Your task to perform on an android device: Search for pizza restaurants on Maps Image 0: 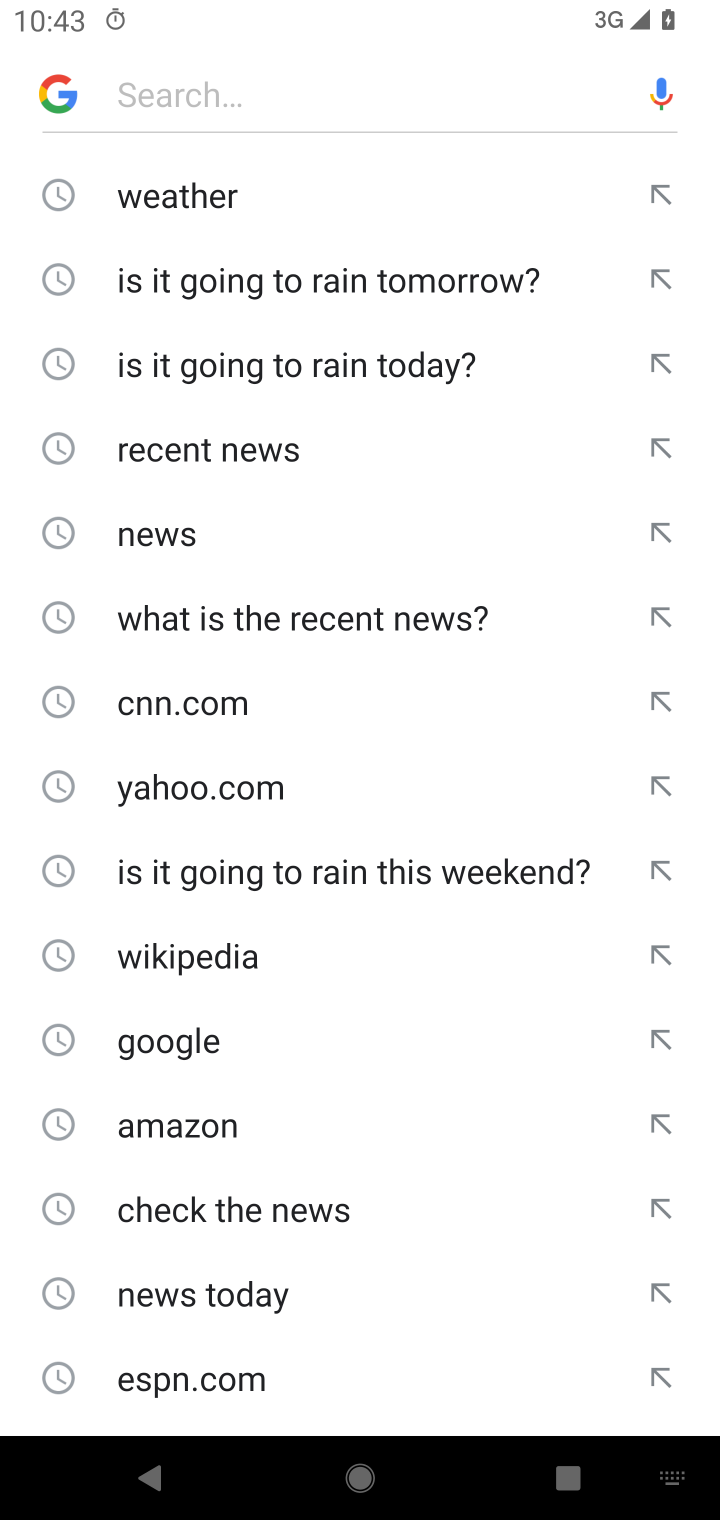
Step 0: press home button
Your task to perform on an android device: Search for pizza restaurants on Maps Image 1: 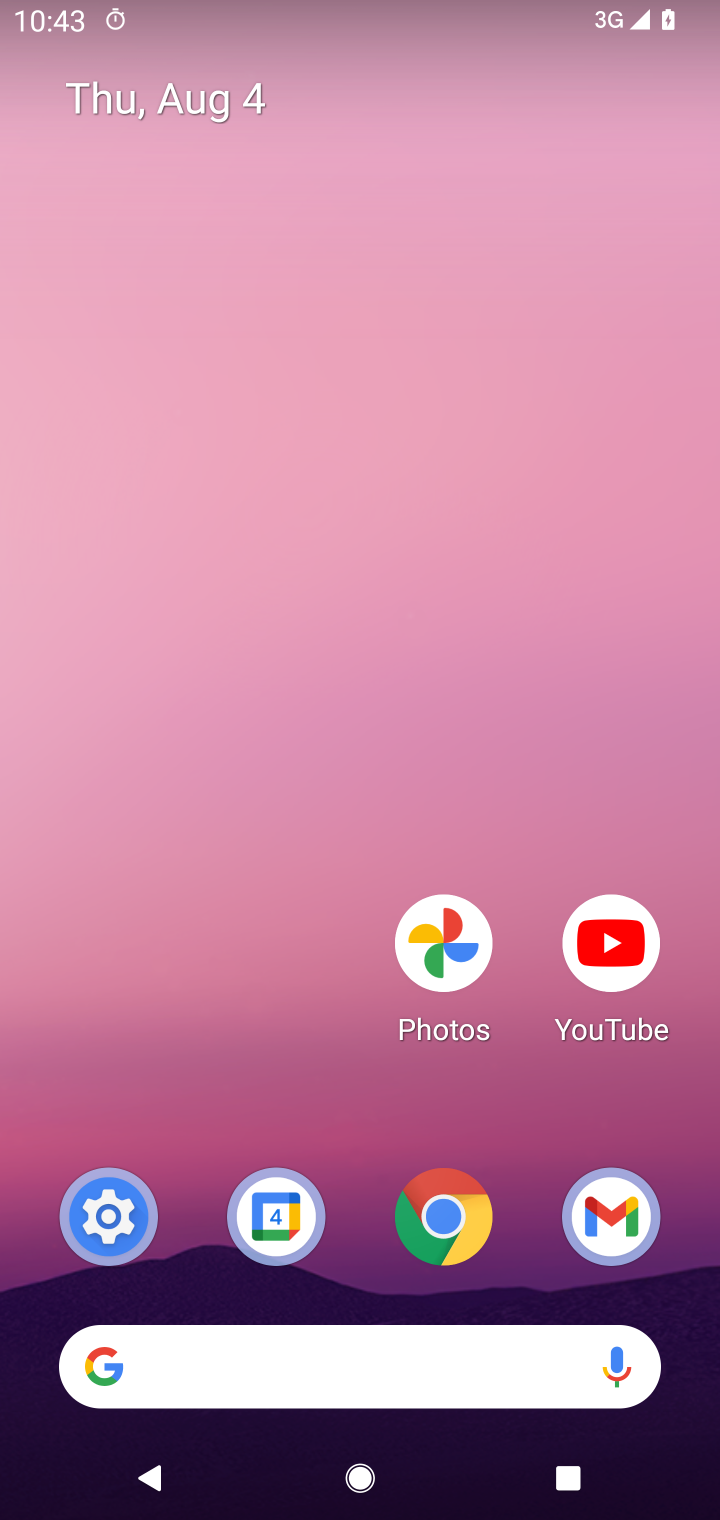
Step 1: drag from (349, 1196) to (347, 138)
Your task to perform on an android device: Search for pizza restaurants on Maps Image 2: 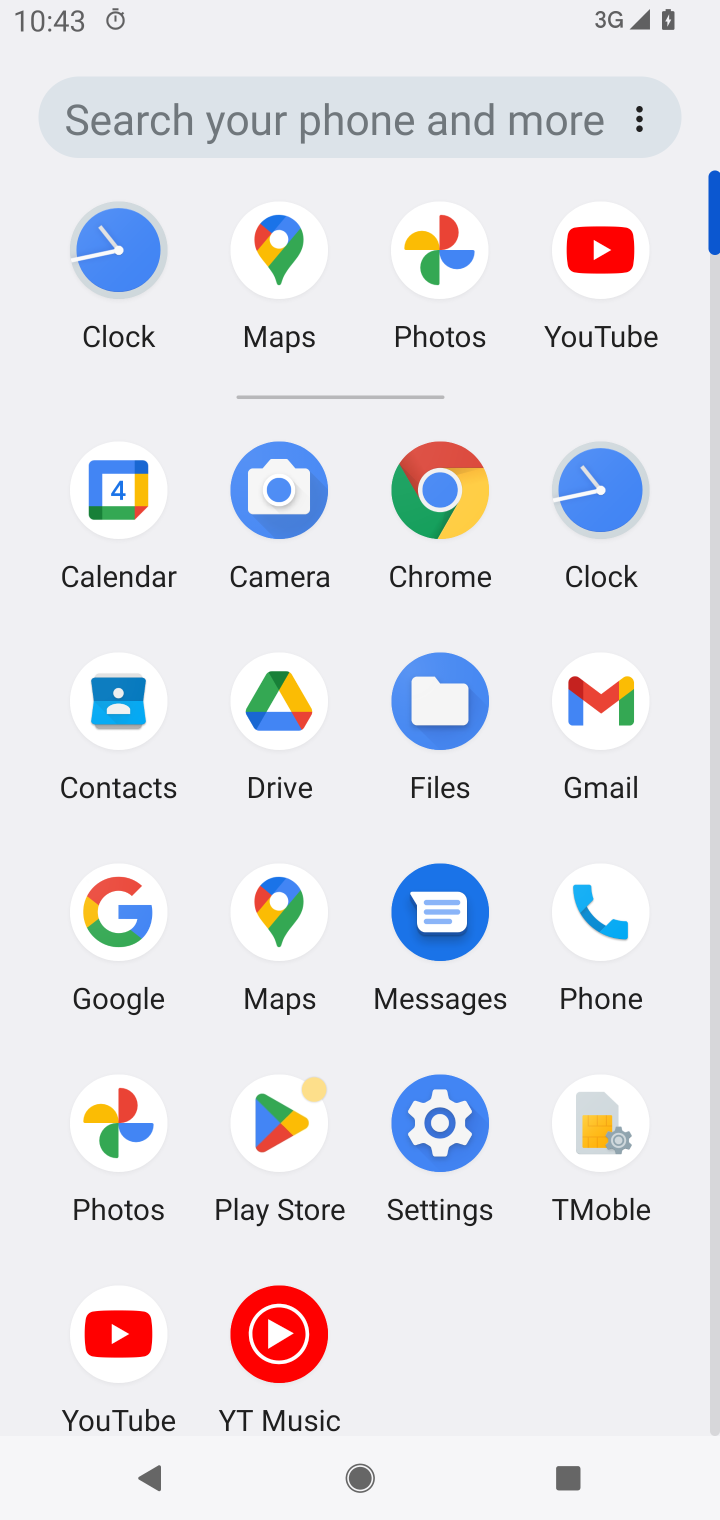
Step 2: click (260, 913)
Your task to perform on an android device: Search for pizza restaurants on Maps Image 3: 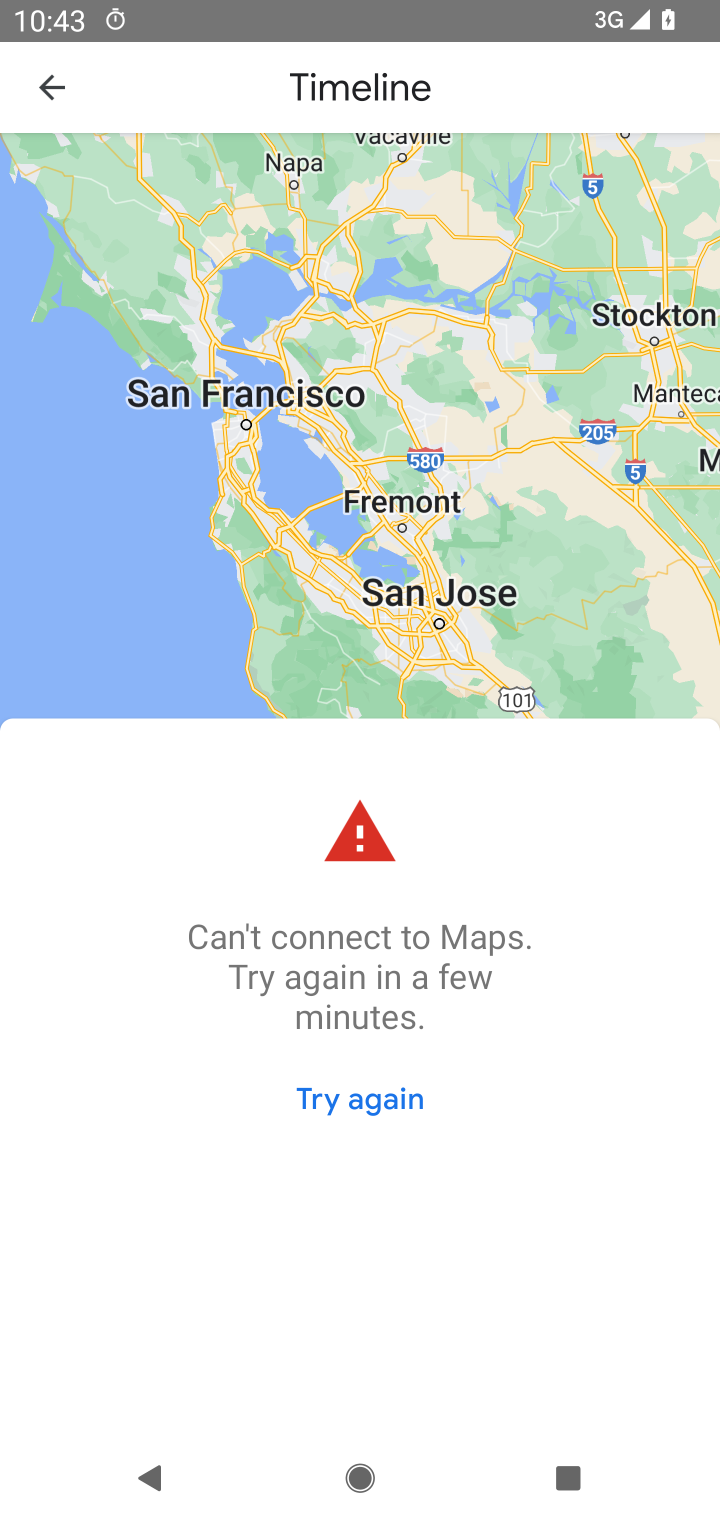
Step 3: click (39, 83)
Your task to perform on an android device: Search for pizza restaurants on Maps Image 4: 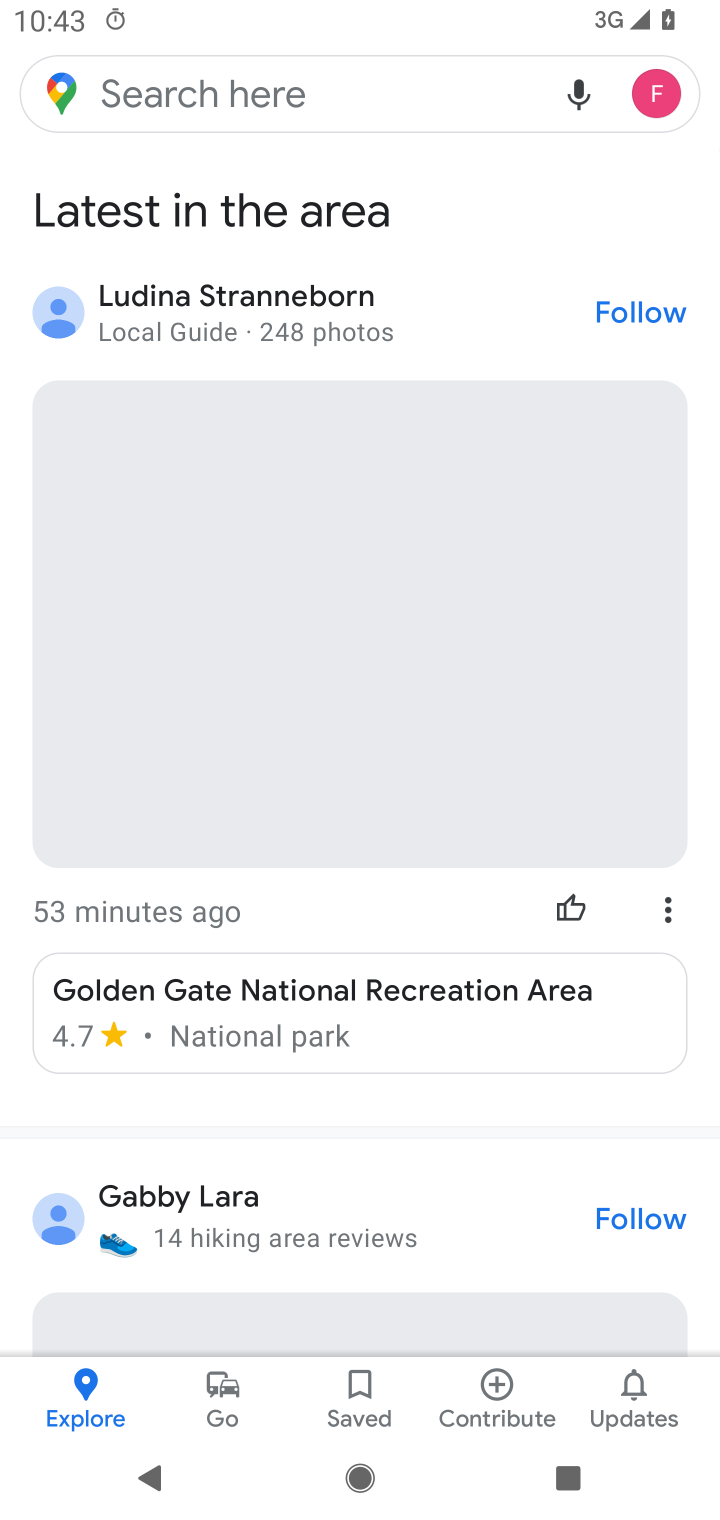
Step 4: click (381, 100)
Your task to perform on an android device: Search for pizza restaurants on Maps Image 5: 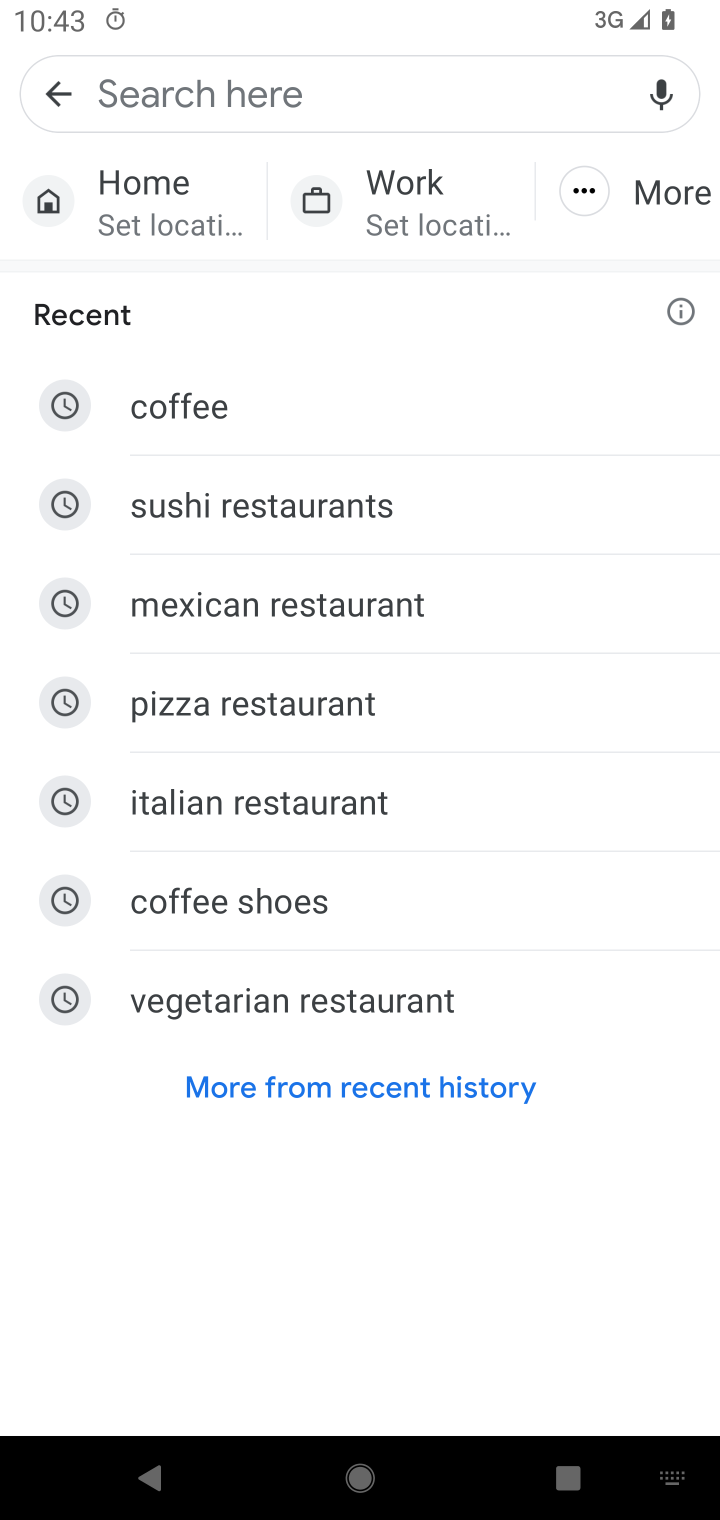
Step 5: type "Pizza restaurants"
Your task to perform on an android device: Search for pizza restaurants on Maps Image 6: 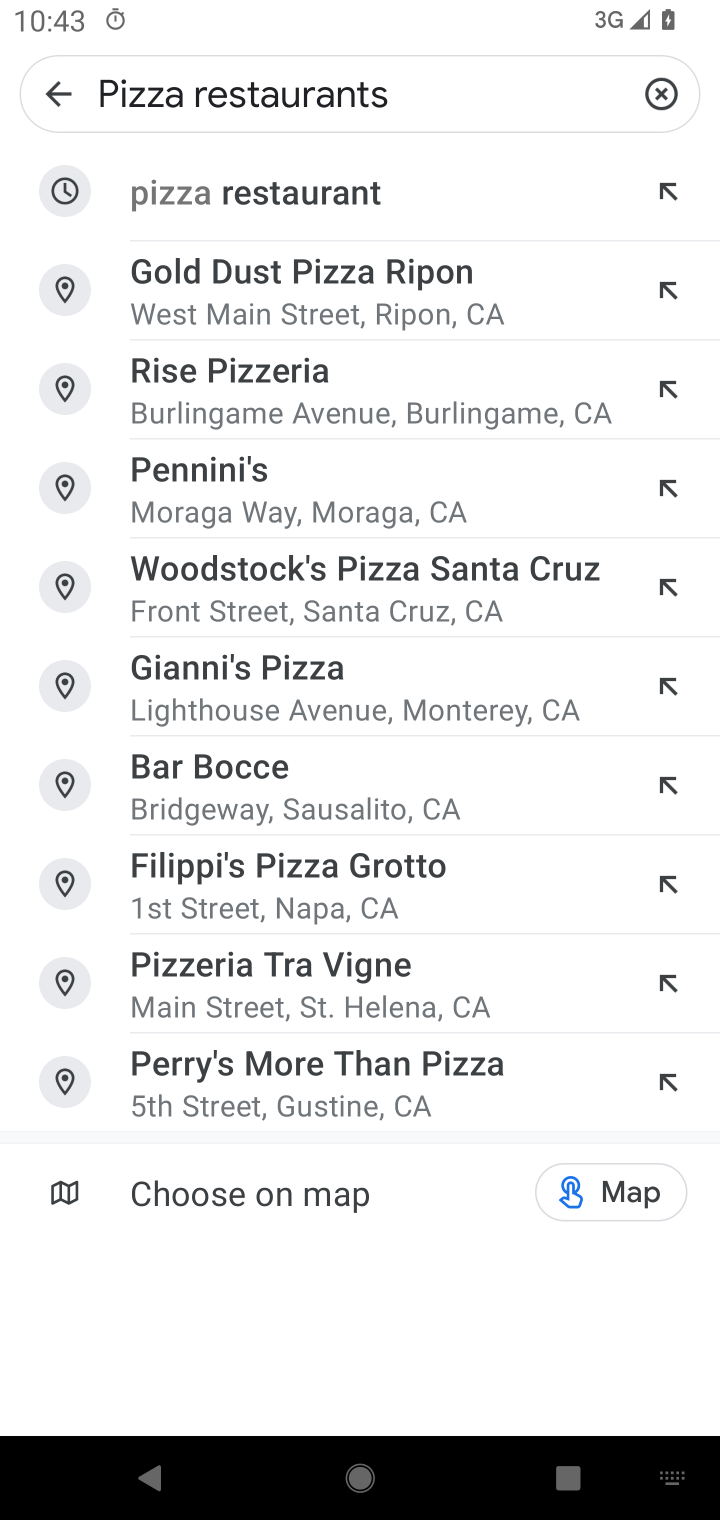
Step 6: click (239, 189)
Your task to perform on an android device: Search for pizza restaurants on Maps Image 7: 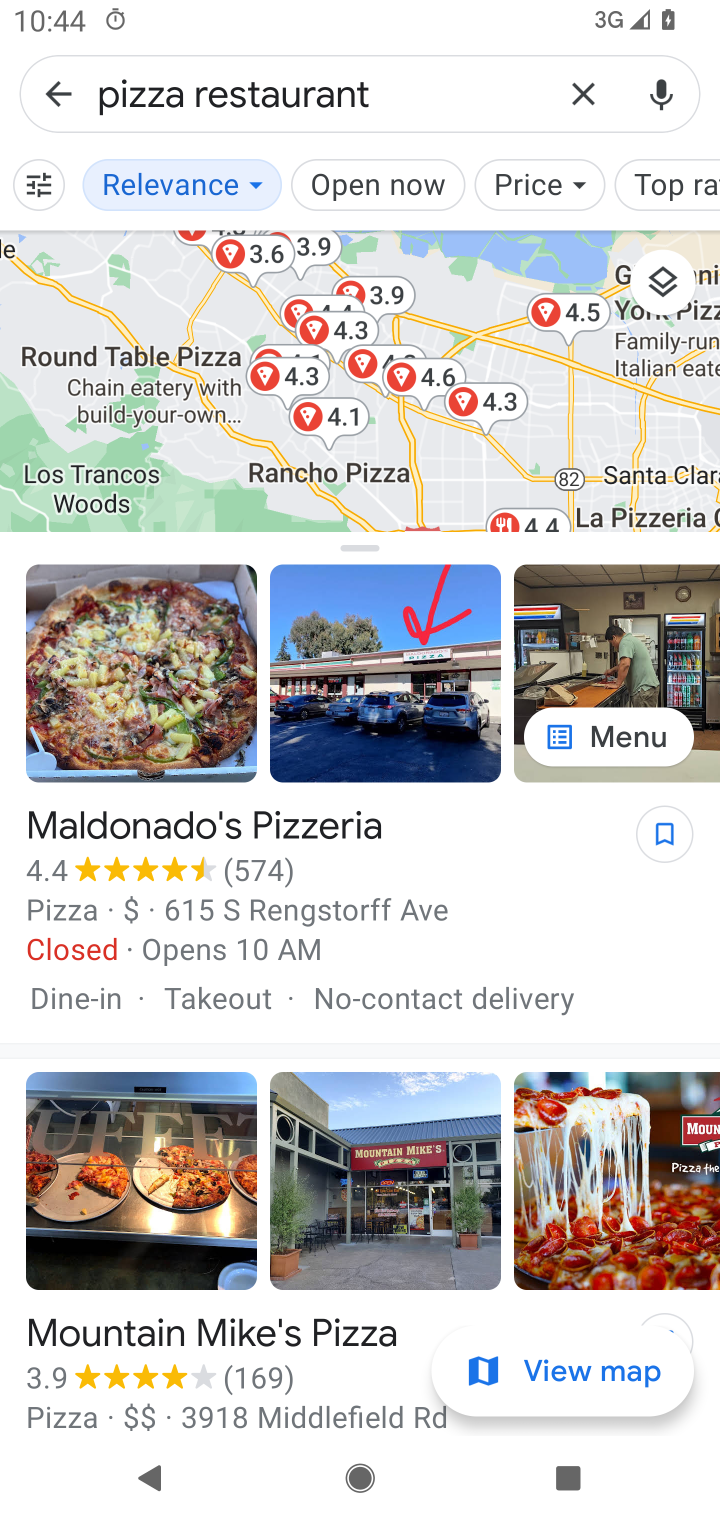
Step 7: task complete